Your task to perform on an android device: Open calendar and show me the third week of next month Image 0: 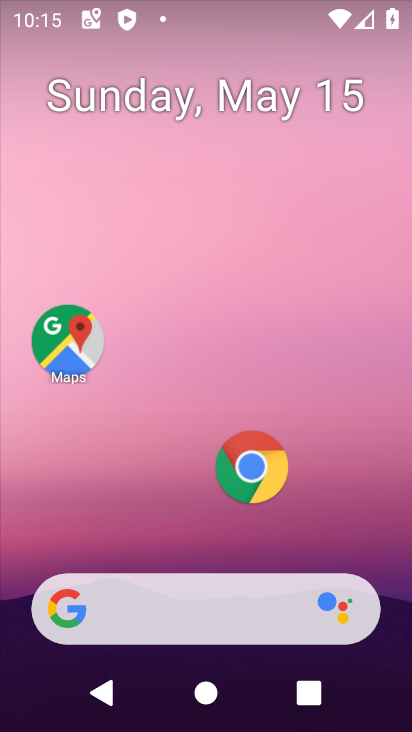
Step 0: drag from (205, 534) to (187, 230)
Your task to perform on an android device: Open calendar and show me the third week of next month Image 1: 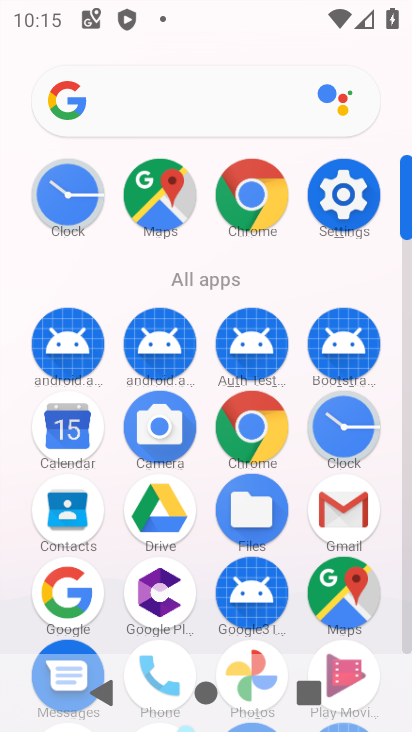
Step 1: click (42, 410)
Your task to perform on an android device: Open calendar and show me the third week of next month Image 2: 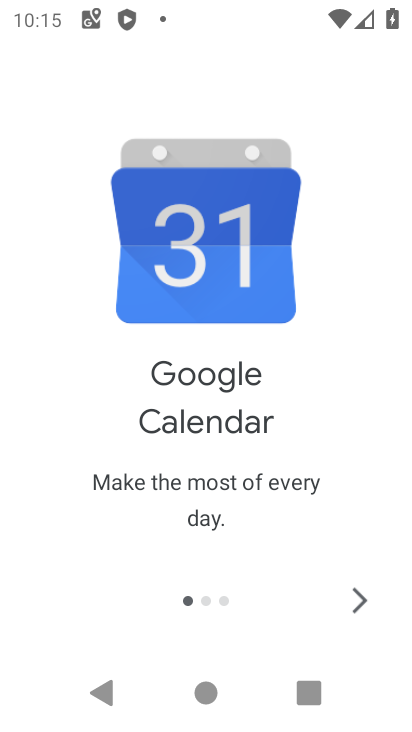
Step 2: click (359, 594)
Your task to perform on an android device: Open calendar and show me the third week of next month Image 3: 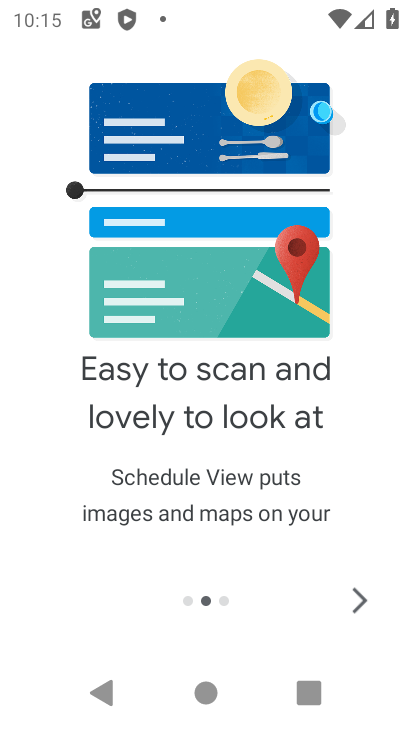
Step 3: click (352, 589)
Your task to perform on an android device: Open calendar and show me the third week of next month Image 4: 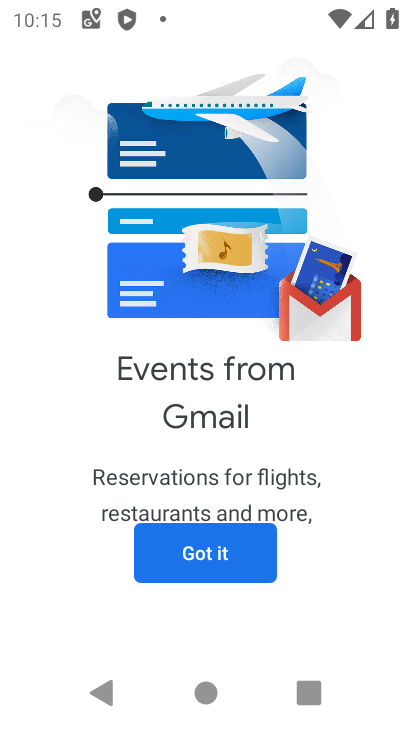
Step 4: click (200, 553)
Your task to perform on an android device: Open calendar and show me the third week of next month Image 5: 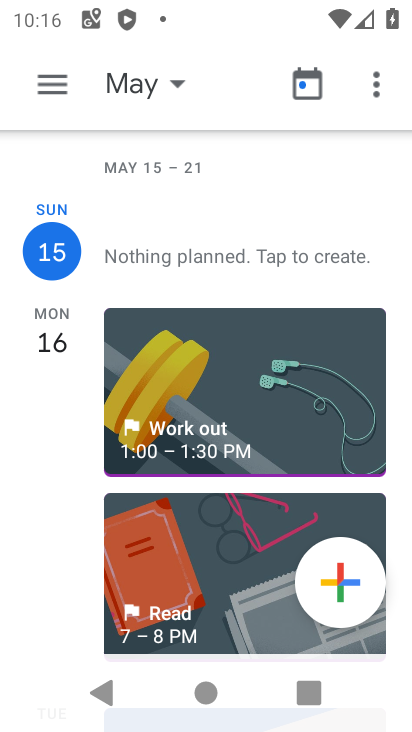
Step 5: drag from (223, 620) to (281, 0)
Your task to perform on an android device: Open calendar and show me the third week of next month Image 6: 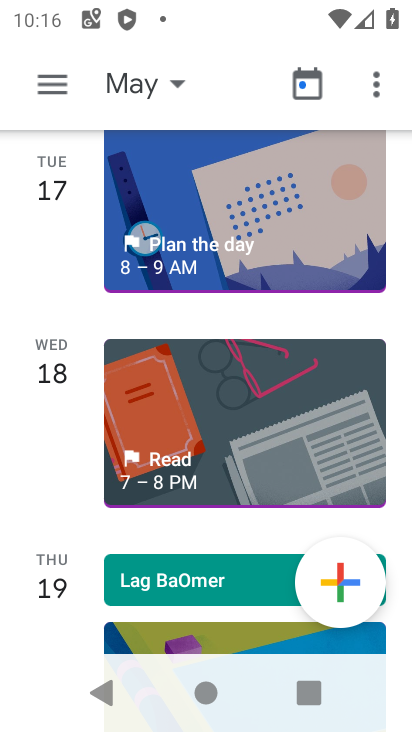
Step 6: drag from (188, 543) to (211, 87)
Your task to perform on an android device: Open calendar and show me the third week of next month Image 7: 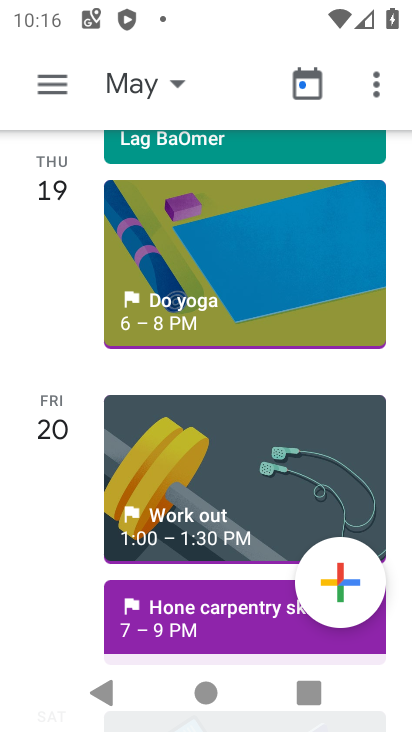
Step 7: click (130, 88)
Your task to perform on an android device: Open calendar and show me the third week of next month Image 8: 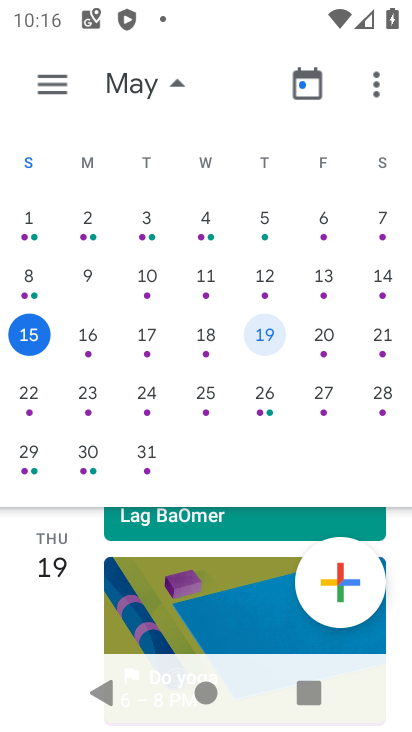
Step 8: drag from (339, 283) to (0, 316)
Your task to perform on an android device: Open calendar and show me the third week of next month Image 9: 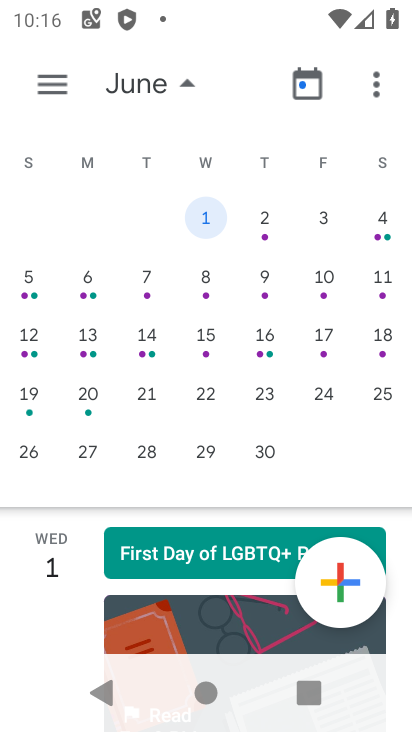
Step 9: click (205, 334)
Your task to perform on an android device: Open calendar and show me the third week of next month Image 10: 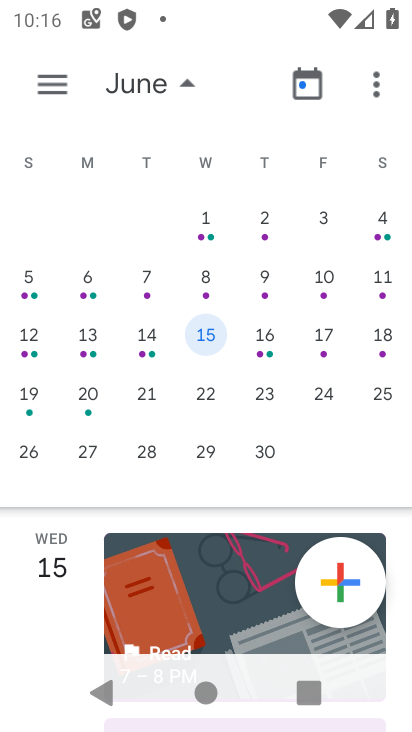
Step 10: task complete